Your task to perform on an android device: Show me the alarms in the clock app Image 0: 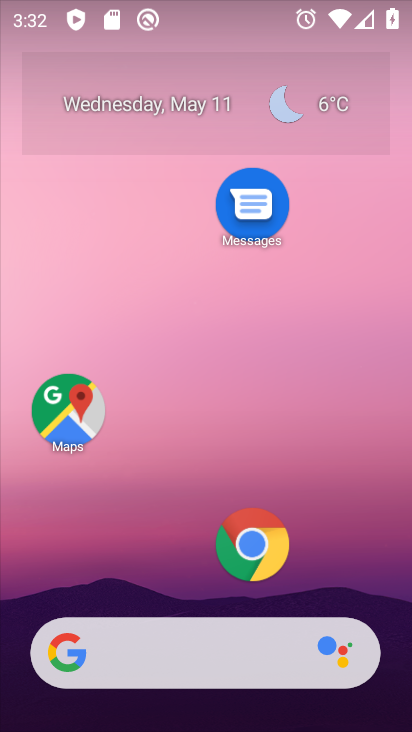
Step 0: drag from (147, 513) to (254, 38)
Your task to perform on an android device: Show me the alarms in the clock app Image 1: 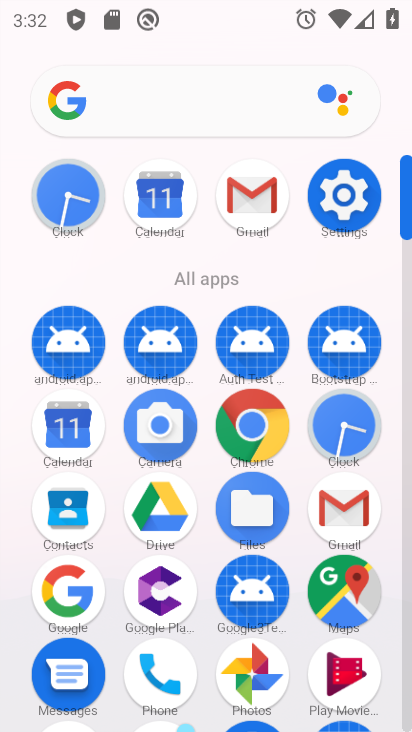
Step 1: click (346, 425)
Your task to perform on an android device: Show me the alarms in the clock app Image 2: 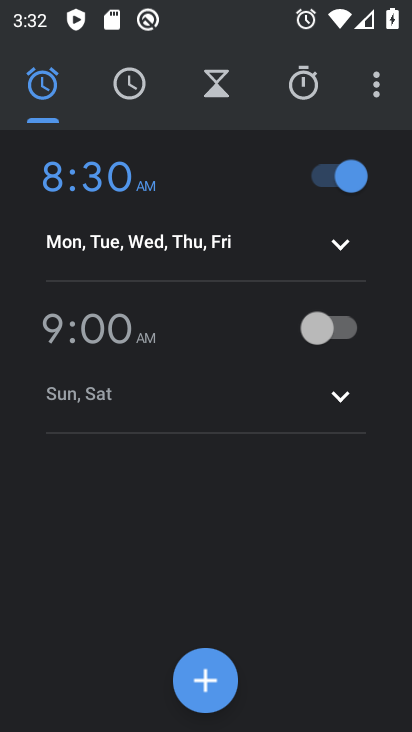
Step 2: task complete